Your task to perform on an android device: turn off picture-in-picture Image 0: 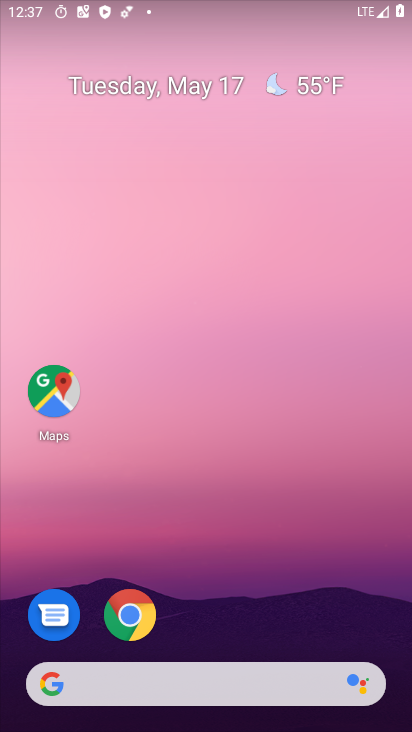
Step 0: press home button
Your task to perform on an android device: turn off picture-in-picture Image 1: 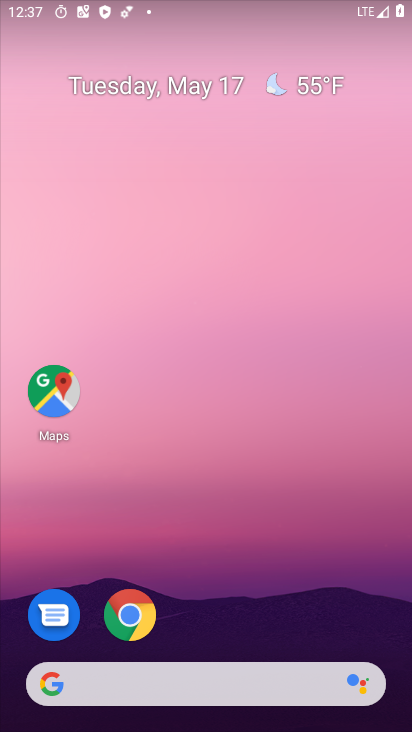
Step 1: click (116, 614)
Your task to perform on an android device: turn off picture-in-picture Image 2: 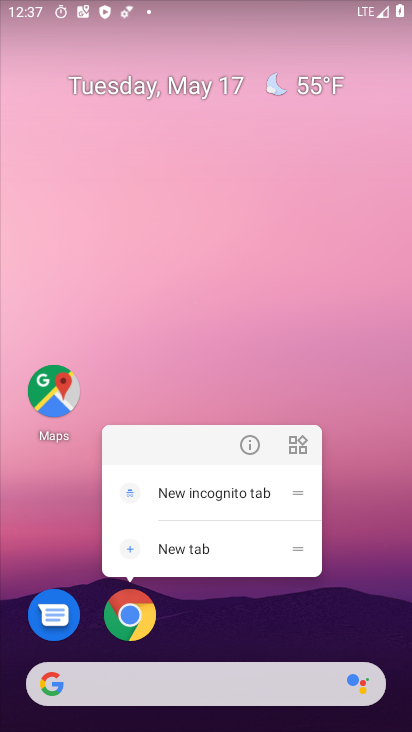
Step 2: click (235, 455)
Your task to perform on an android device: turn off picture-in-picture Image 3: 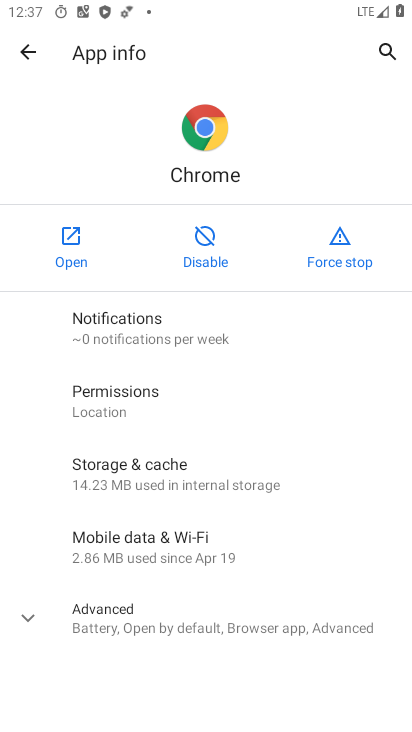
Step 3: drag from (231, 405) to (228, 371)
Your task to perform on an android device: turn off picture-in-picture Image 4: 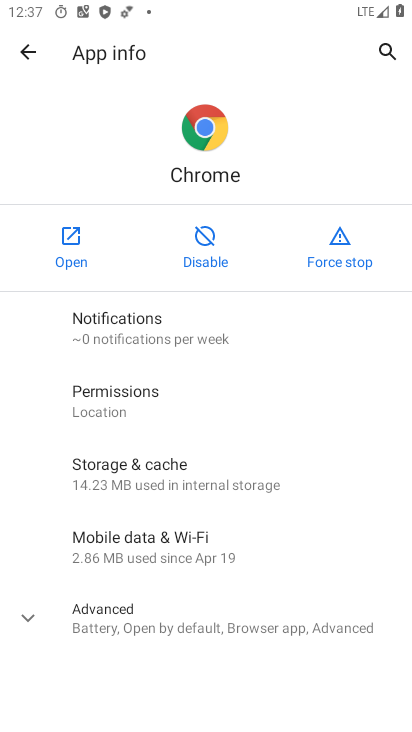
Step 4: click (172, 638)
Your task to perform on an android device: turn off picture-in-picture Image 5: 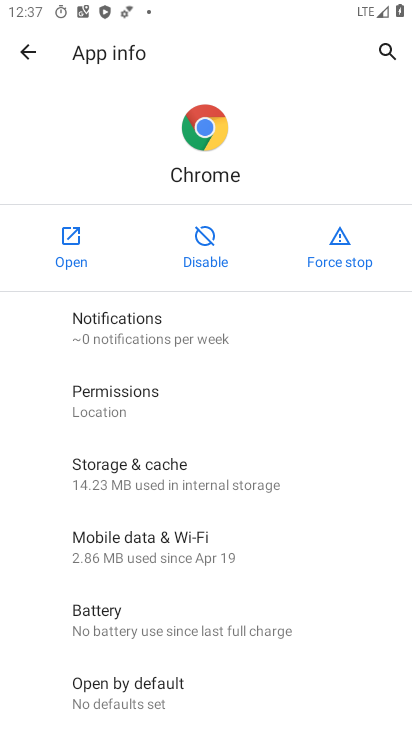
Step 5: drag from (231, 639) to (353, 145)
Your task to perform on an android device: turn off picture-in-picture Image 6: 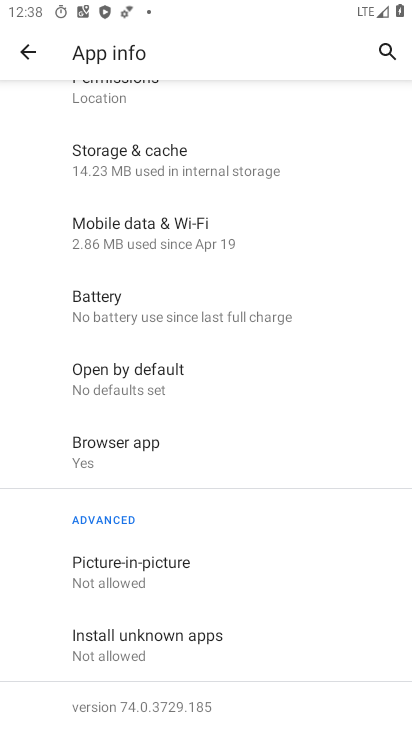
Step 6: click (200, 570)
Your task to perform on an android device: turn off picture-in-picture Image 7: 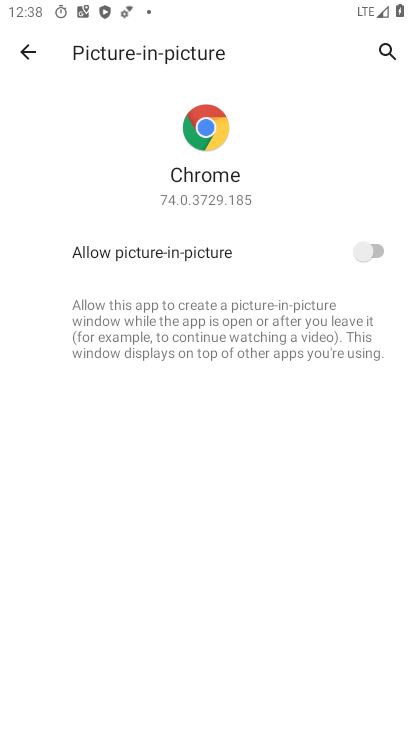
Step 7: task complete